Your task to perform on an android device: find which apps use the phone's location Image 0: 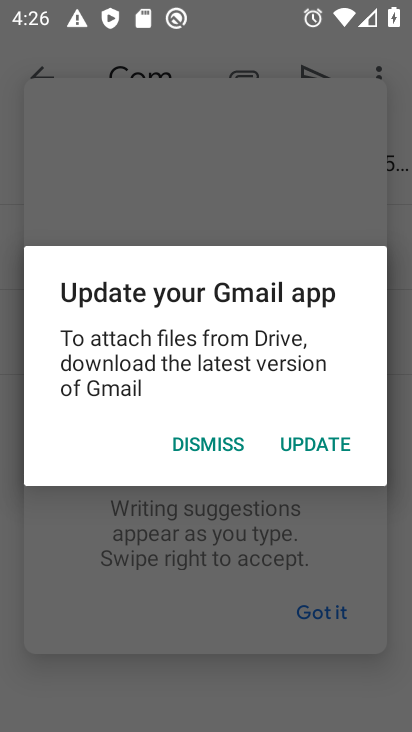
Step 0: press home button
Your task to perform on an android device: find which apps use the phone's location Image 1: 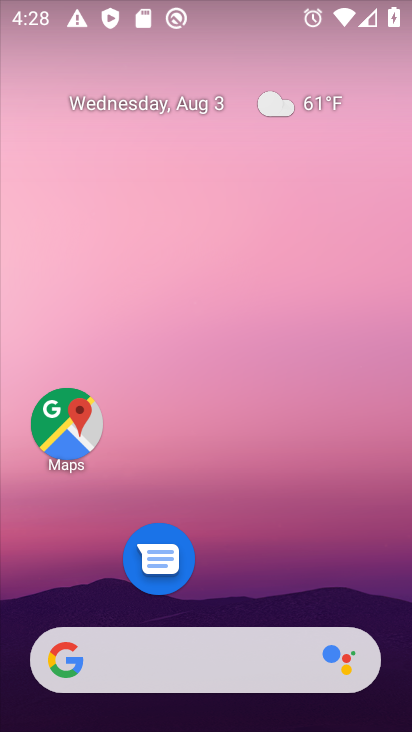
Step 1: drag from (254, 622) to (249, 63)
Your task to perform on an android device: find which apps use the phone's location Image 2: 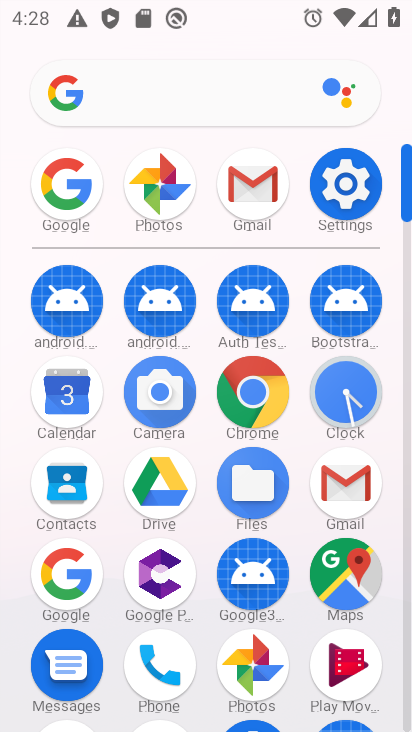
Step 2: click (352, 190)
Your task to perform on an android device: find which apps use the phone's location Image 3: 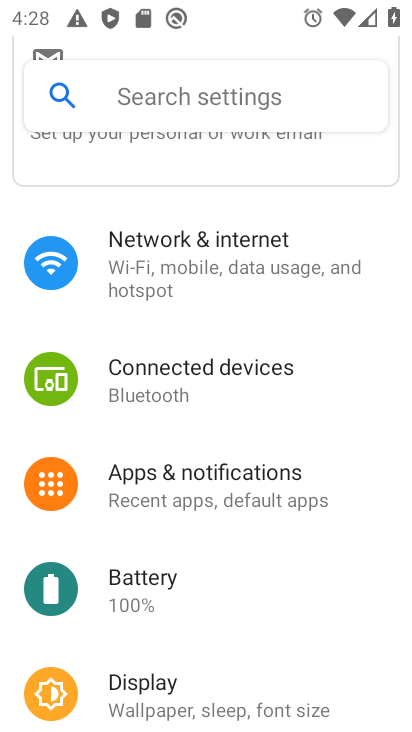
Step 3: drag from (179, 666) to (163, 246)
Your task to perform on an android device: find which apps use the phone's location Image 4: 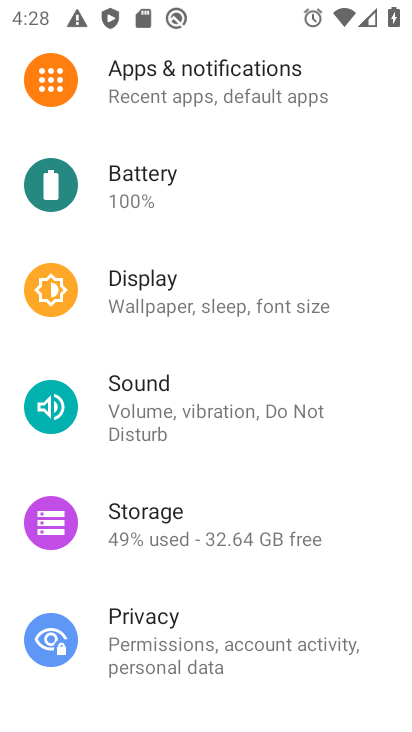
Step 4: drag from (132, 655) to (134, 244)
Your task to perform on an android device: find which apps use the phone's location Image 5: 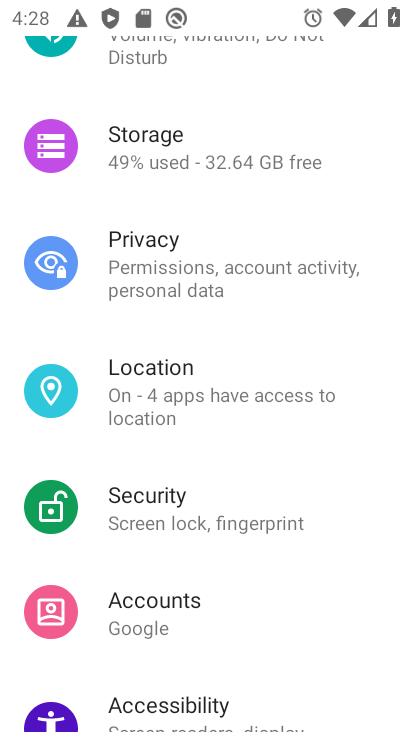
Step 5: click (149, 387)
Your task to perform on an android device: find which apps use the phone's location Image 6: 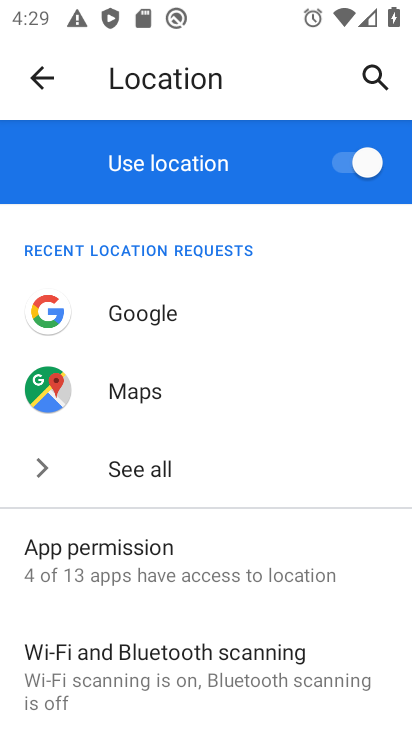
Step 6: click (125, 565)
Your task to perform on an android device: find which apps use the phone's location Image 7: 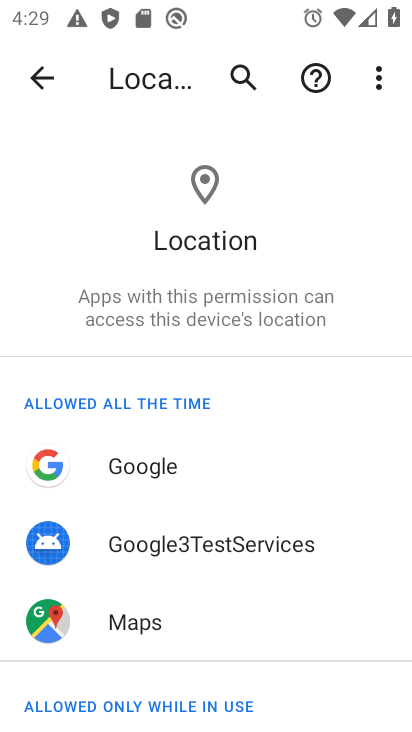
Step 7: task complete